Your task to perform on an android device: Go to Amazon Image 0: 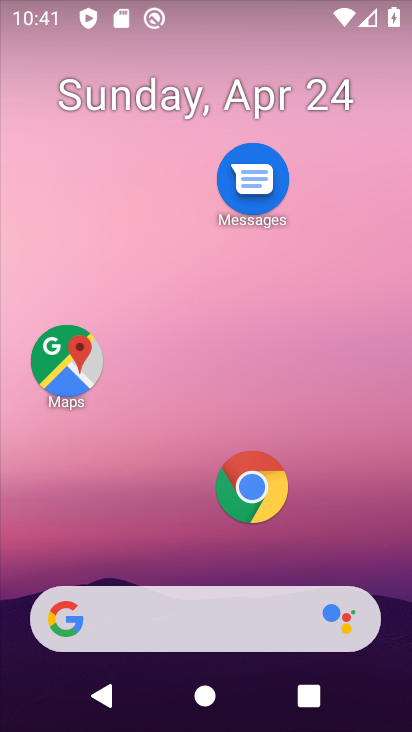
Step 0: click (262, 489)
Your task to perform on an android device: Go to Amazon Image 1: 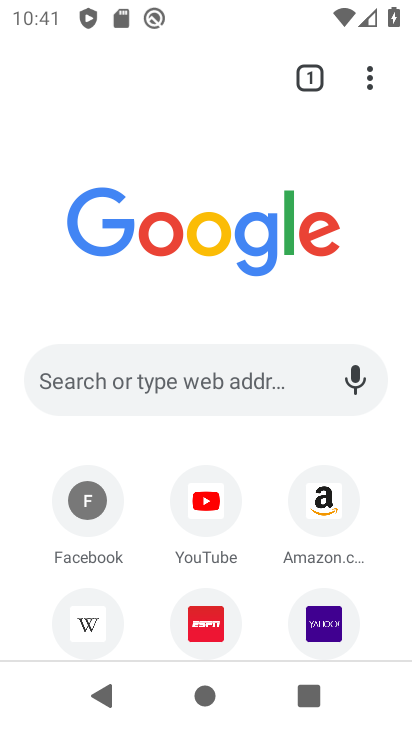
Step 1: click (323, 520)
Your task to perform on an android device: Go to Amazon Image 2: 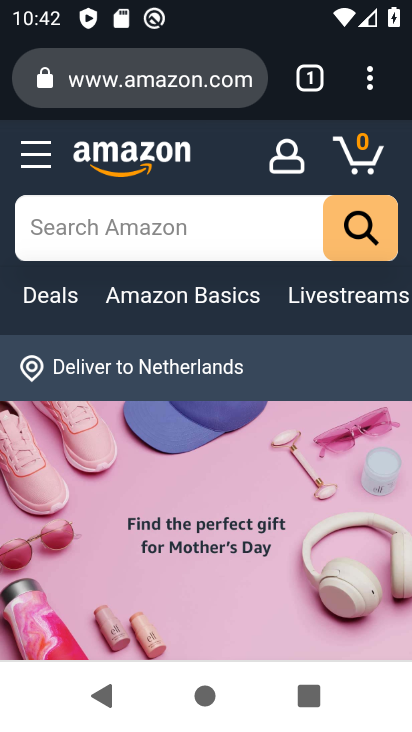
Step 2: click (315, 412)
Your task to perform on an android device: Go to Amazon Image 3: 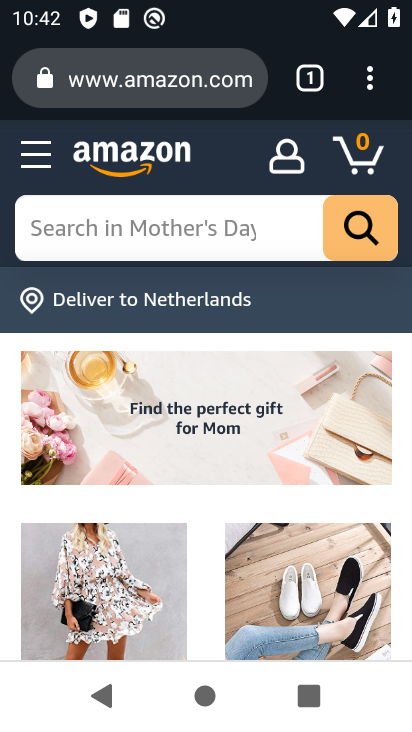
Step 3: task complete